Your task to perform on an android device: When is my next appointment? Image 0: 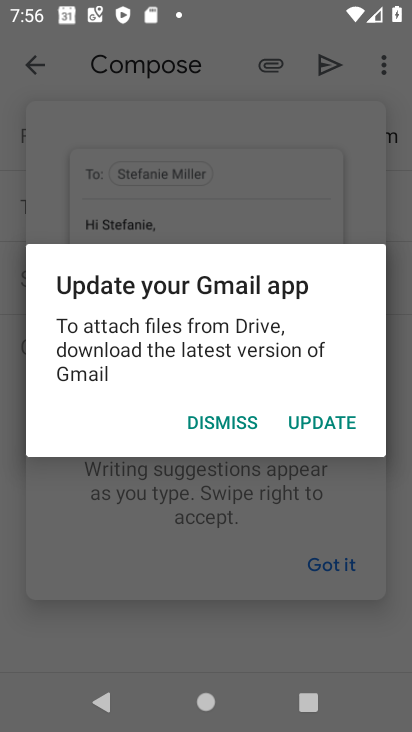
Step 0: press home button
Your task to perform on an android device: When is my next appointment? Image 1: 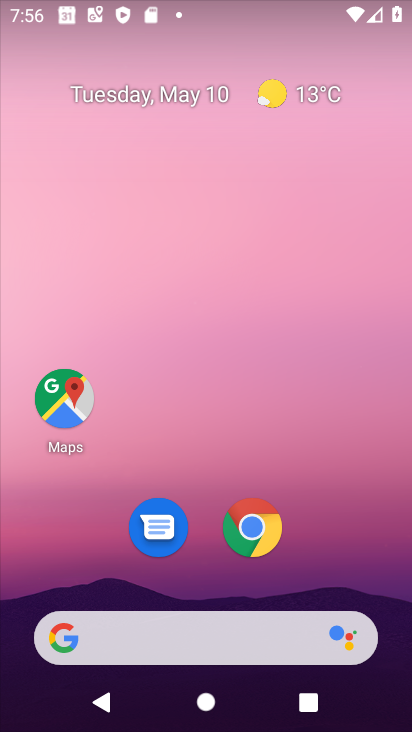
Step 1: drag from (98, 507) to (247, 214)
Your task to perform on an android device: When is my next appointment? Image 2: 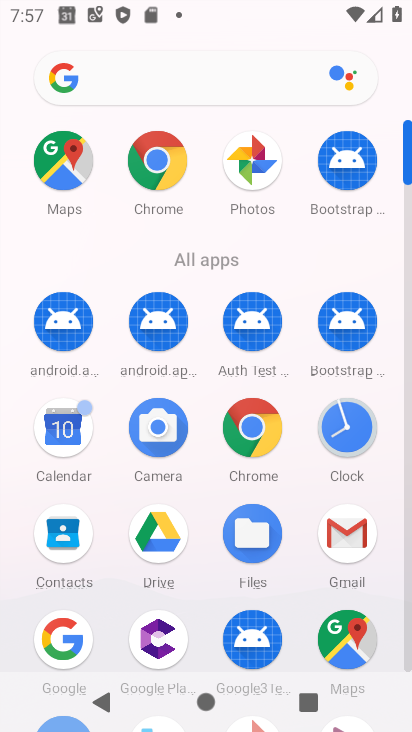
Step 2: click (78, 430)
Your task to perform on an android device: When is my next appointment? Image 3: 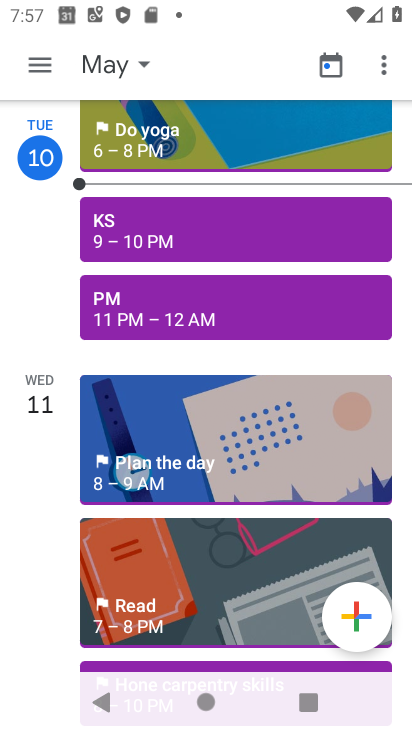
Step 3: task complete